Your task to perform on an android device: Set the phone to "Do not disturb". Image 0: 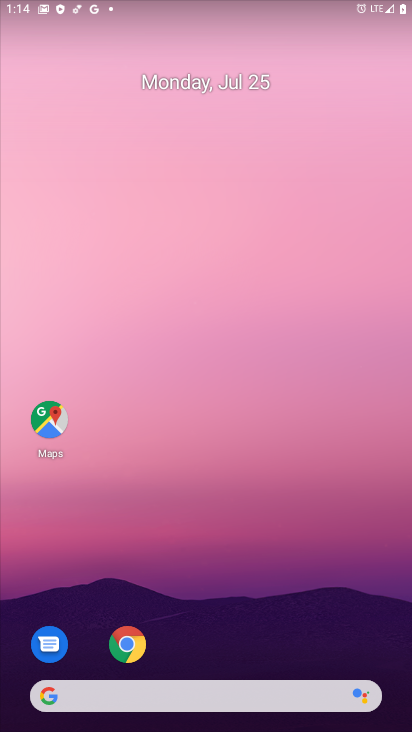
Step 0: drag from (303, 610) to (268, 27)
Your task to perform on an android device: Set the phone to "Do not disturb". Image 1: 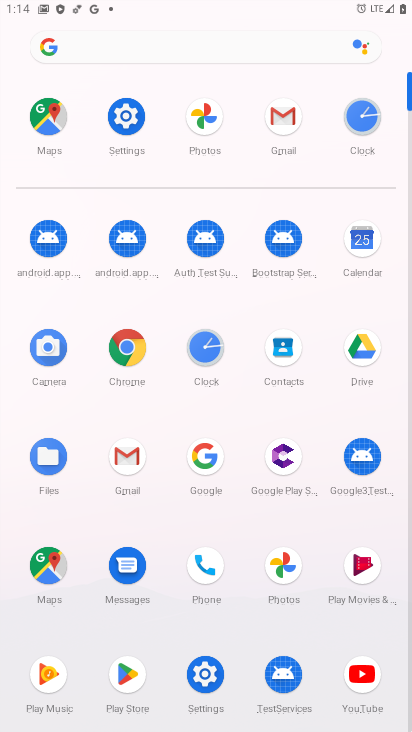
Step 1: click (128, 118)
Your task to perform on an android device: Set the phone to "Do not disturb". Image 2: 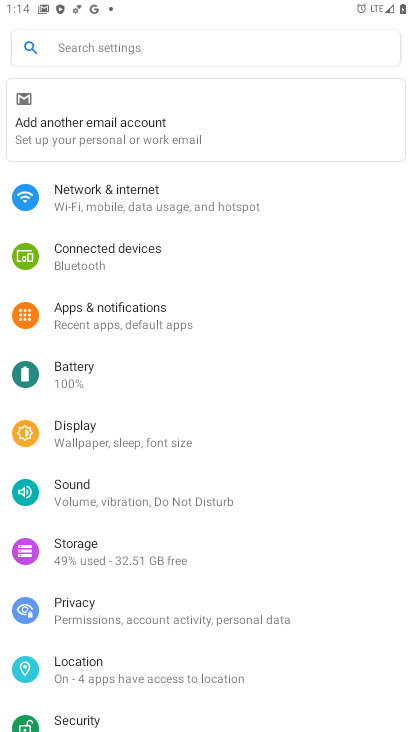
Step 2: click (131, 498)
Your task to perform on an android device: Set the phone to "Do not disturb". Image 3: 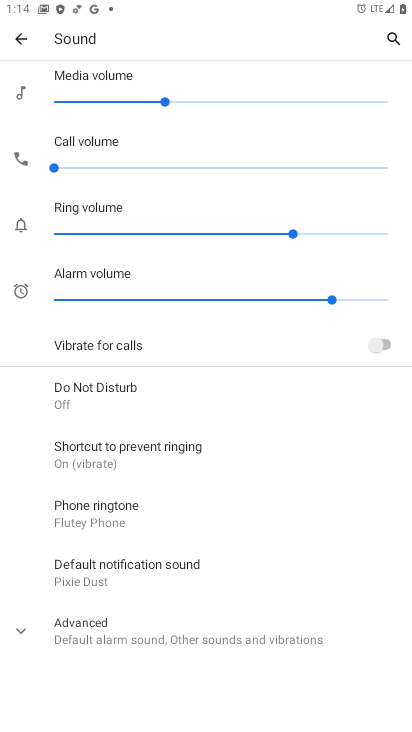
Step 3: click (129, 390)
Your task to perform on an android device: Set the phone to "Do not disturb". Image 4: 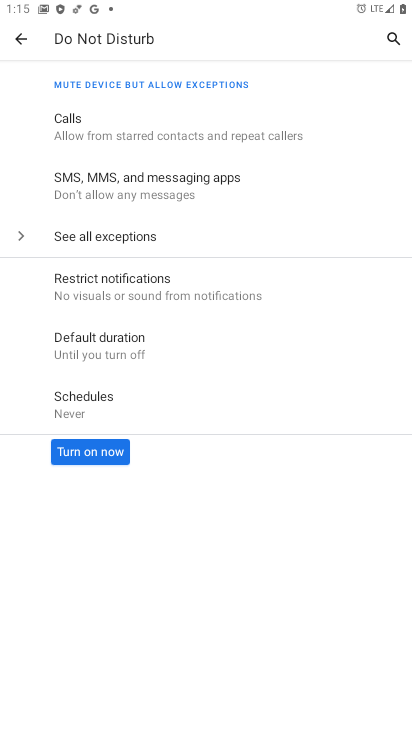
Step 4: click (101, 445)
Your task to perform on an android device: Set the phone to "Do not disturb". Image 5: 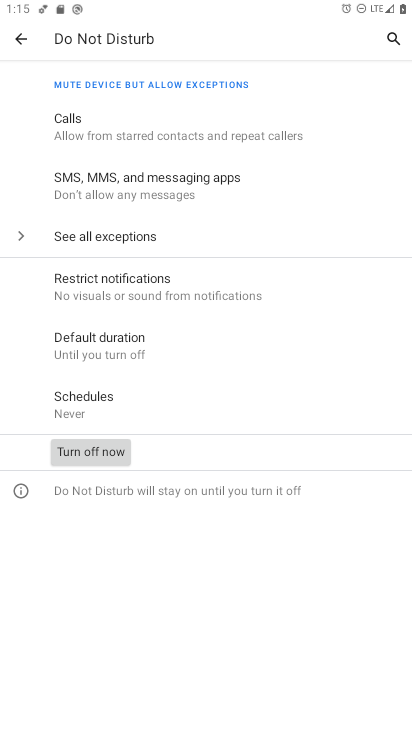
Step 5: task complete